Your task to perform on an android device: open sync settings in chrome Image 0: 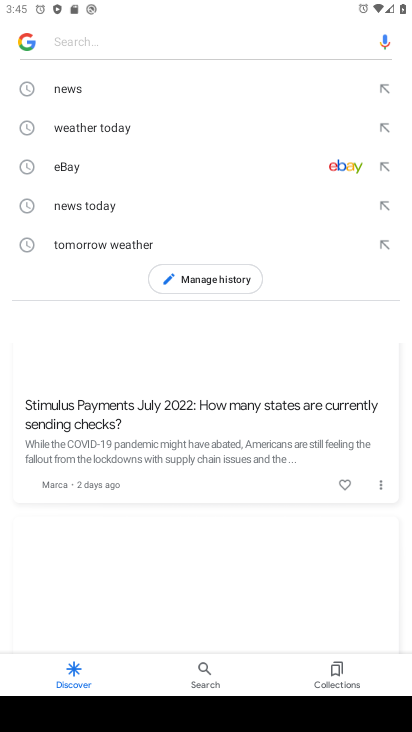
Step 0: press home button
Your task to perform on an android device: open sync settings in chrome Image 1: 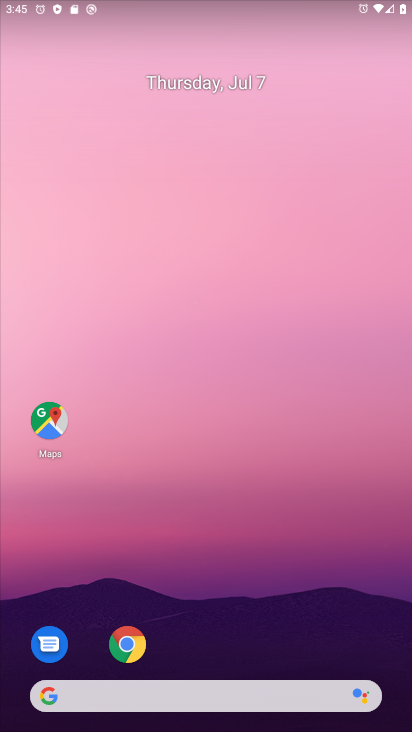
Step 1: drag from (271, 550) to (332, 12)
Your task to perform on an android device: open sync settings in chrome Image 2: 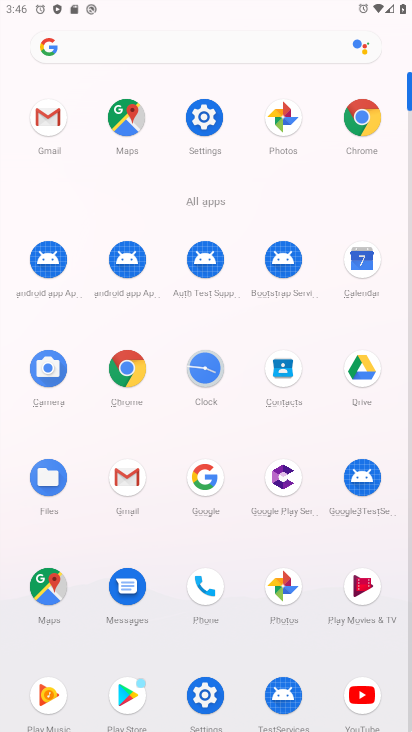
Step 2: click (135, 358)
Your task to perform on an android device: open sync settings in chrome Image 3: 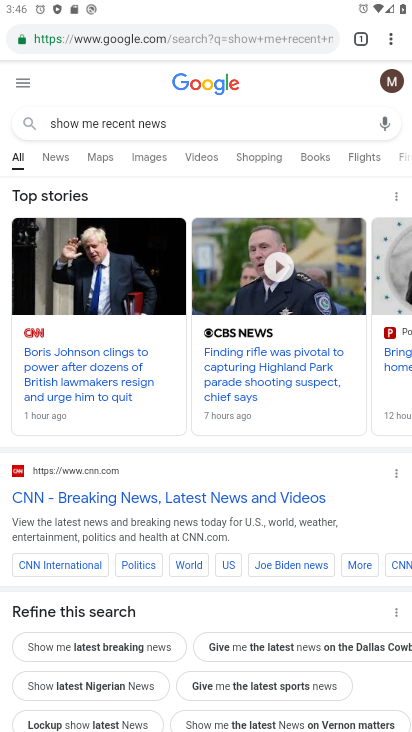
Step 3: drag from (390, 34) to (230, 426)
Your task to perform on an android device: open sync settings in chrome Image 4: 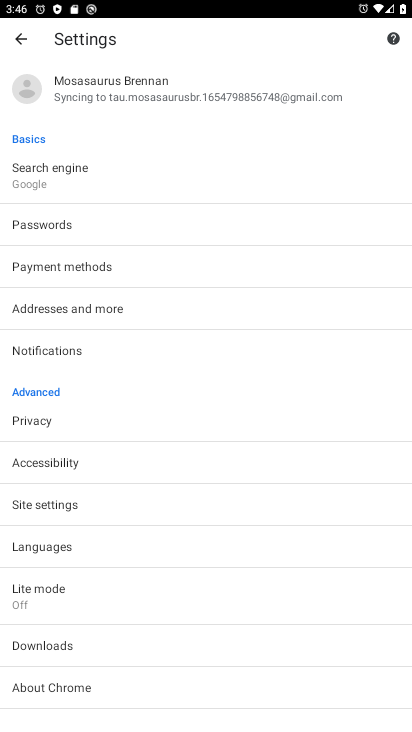
Step 4: click (83, 82)
Your task to perform on an android device: open sync settings in chrome Image 5: 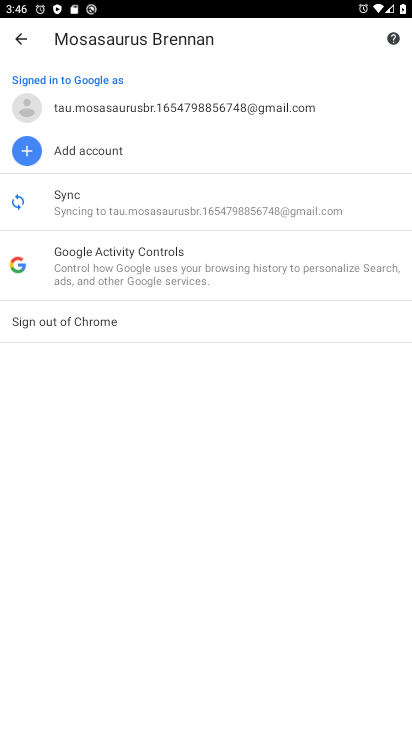
Step 5: click (36, 210)
Your task to perform on an android device: open sync settings in chrome Image 6: 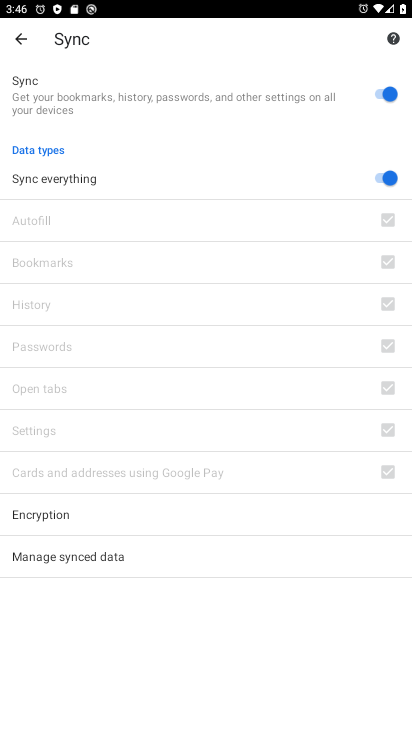
Step 6: task complete